Your task to perform on an android device: Open the Play Movies app and select the watchlist tab. Image 0: 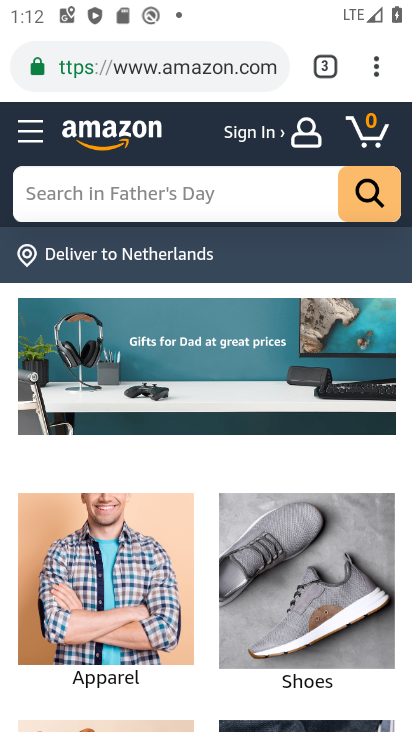
Step 0: press home button
Your task to perform on an android device: Open the Play Movies app and select the watchlist tab. Image 1: 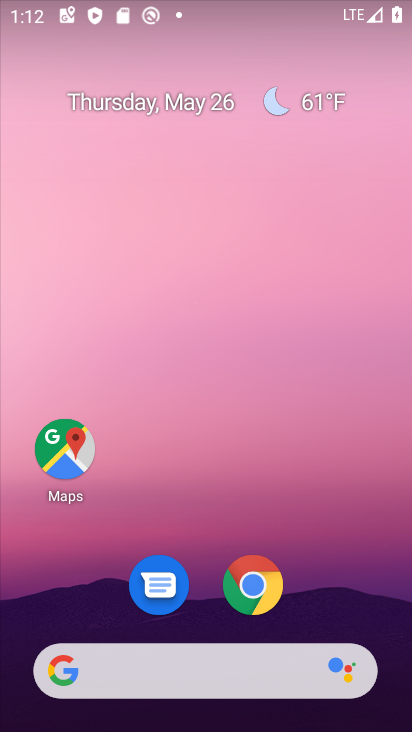
Step 1: drag from (323, 574) to (329, 53)
Your task to perform on an android device: Open the Play Movies app and select the watchlist tab. Image 2: 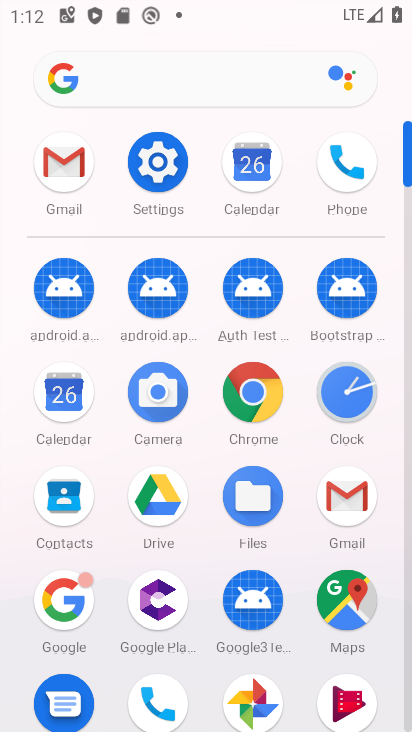
Step 2: click (342, 689)
Your task to perform on an android device: Open the Play Movies app and select the watchlist tab. Image 3: 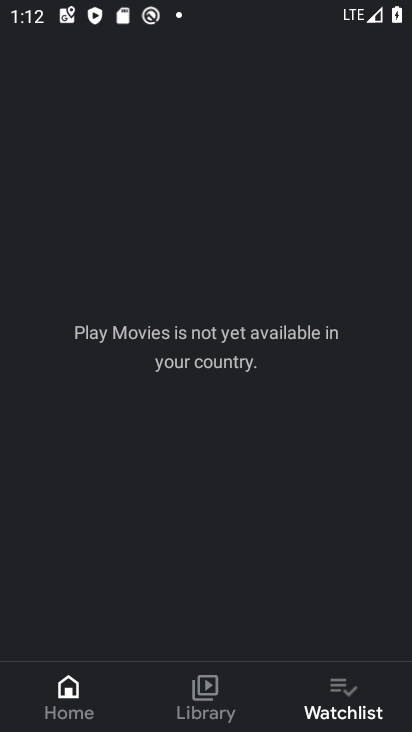
Step 3: click (351, 693)
Your task to perform on an android device: Open the Play Movies app and select the watchlist tab. Image 4: 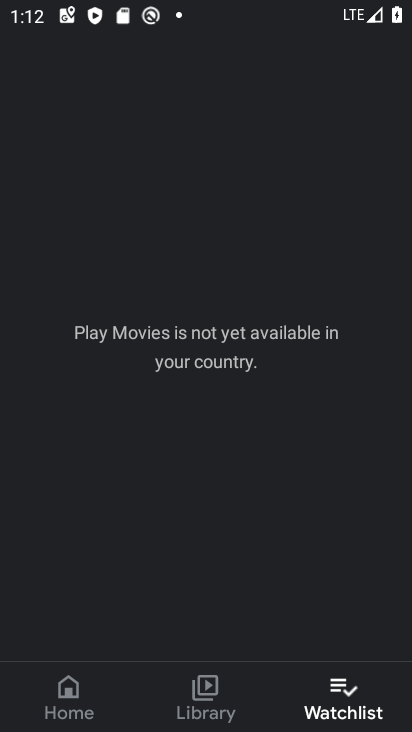
Step 4: task complete